Your task to perform on an android device: toggle location history Image 0: 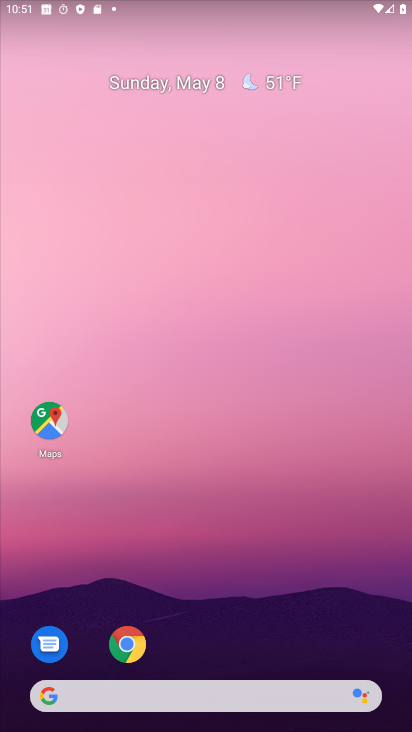
Step 0: click (270, 215)
Your task to perform on an android device: toggle location history Image 1: 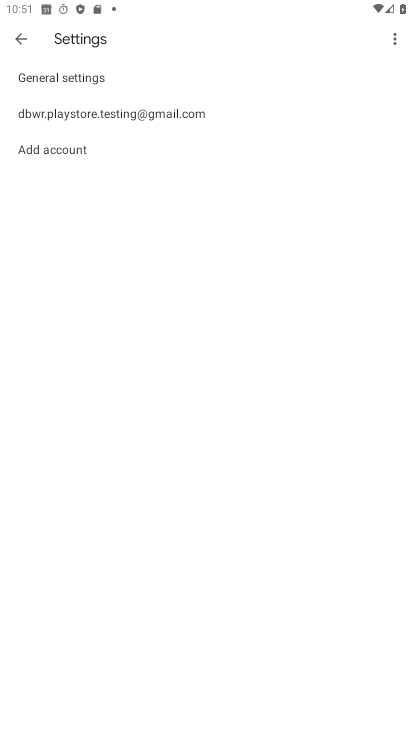
Step 1: click (117, 122)
Your task to perform on an android device: toggle location history Image 2: 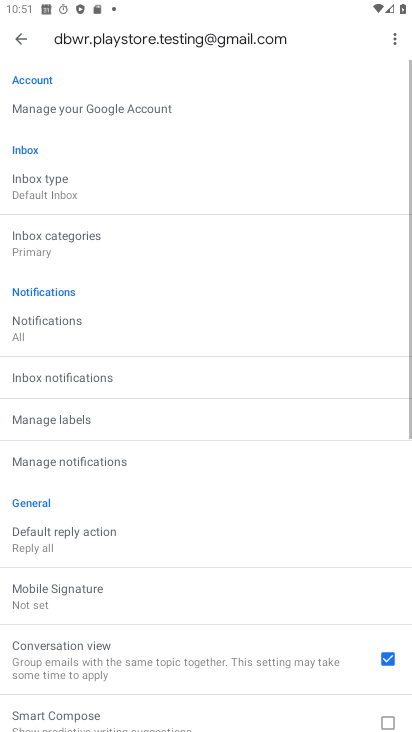
Step 2: press home button
Your task to perform on an android device: toggle location history Image 3: 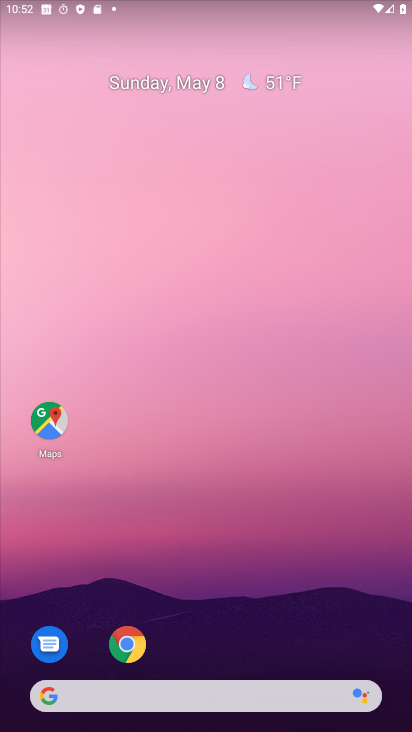
Step 3: drag from (195, 621) to (224, 202)
Your task to perform on an android device: toggle location history Image 4: 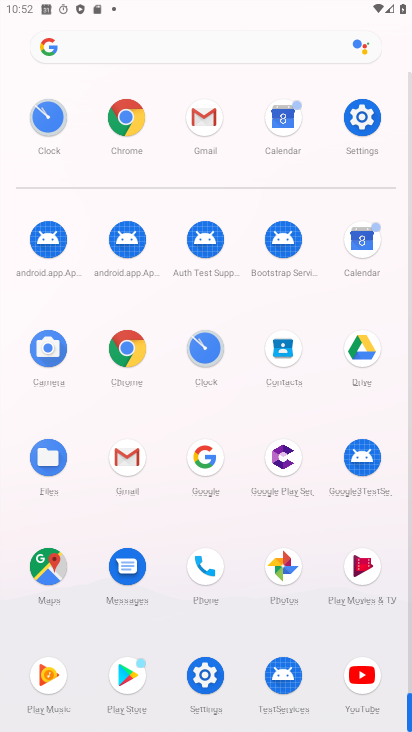
Step 4: click (366, 127)
Your task to perform on an android device: toggle location history Image 5: 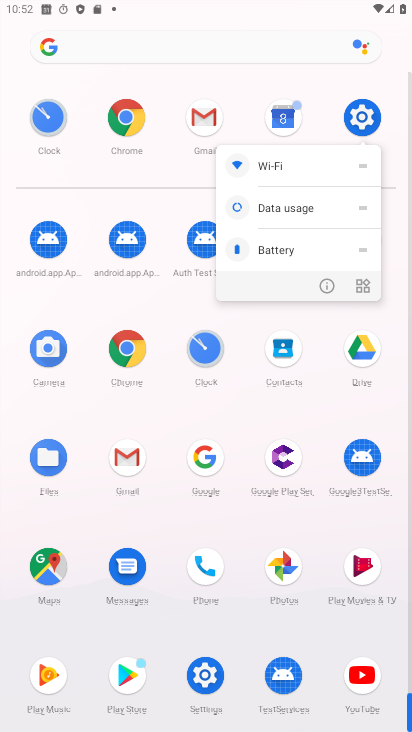
Step 5: click (330, 299)
Your task to perform on an android device: toggle location history Image 6: 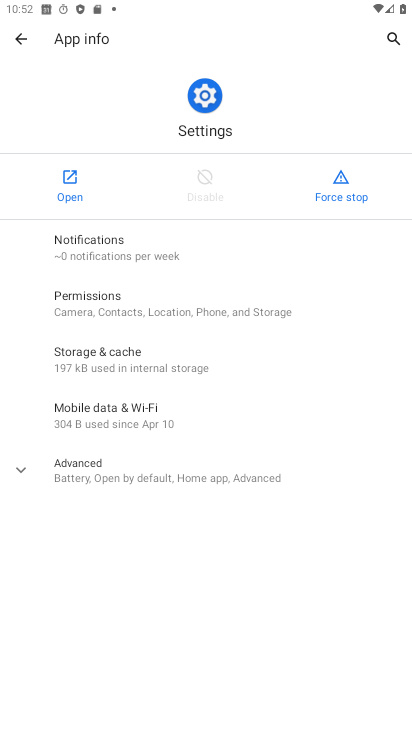
Step 6: click (60, 180)
Your task to perform on an android device: toggle location history Image 7: 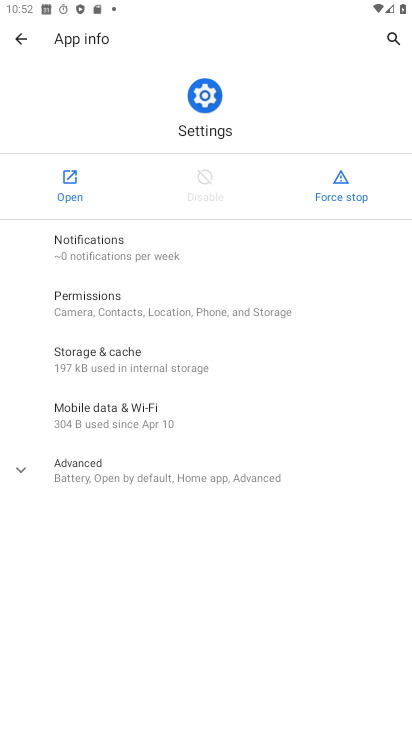
Step 7: click (60, 180)
Your task to perform on an android device: toggle location history Image 8: 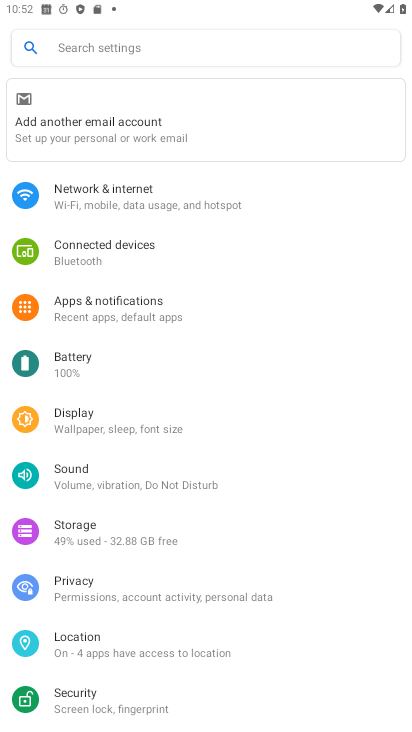
Step 8: drag from (228, 596) to (266, 280)
Your task to perform on an android device: toggle location history Image 9: 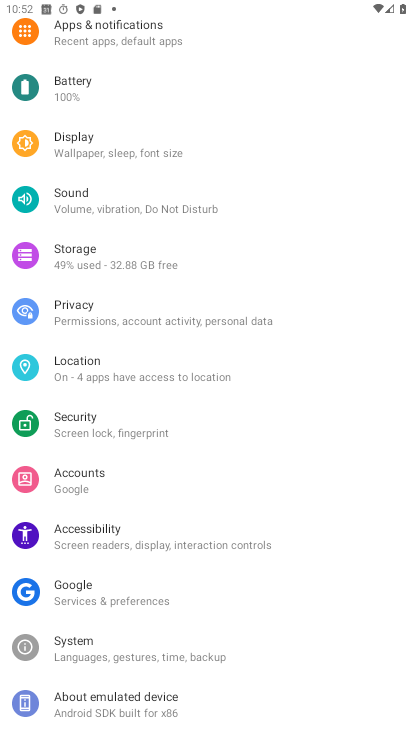
Step 9: click (113, 356)
Your task to perform on an android device: toggle location history Image 10: 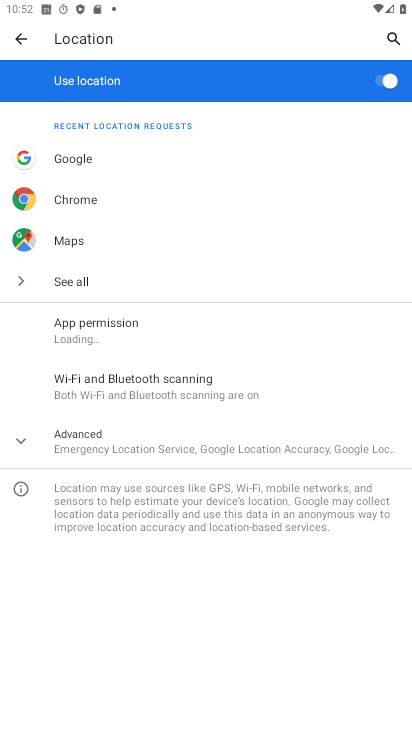
Step 10: click (141, 450)
Your task to perform on an android device: toggle location history Image 11: 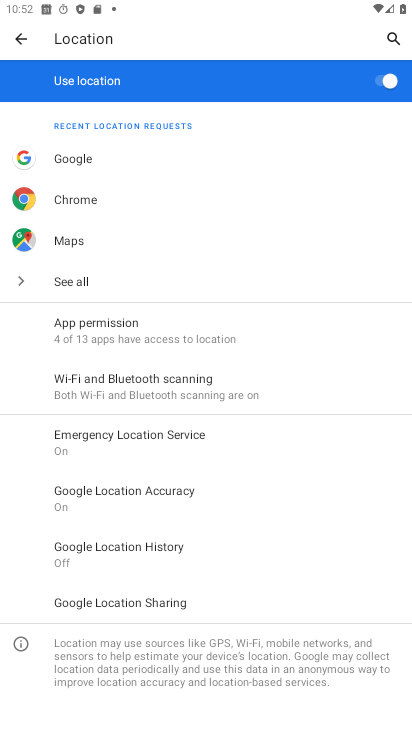
Step 11: click (138, 549)
Your task to perform on an android device: toggle location history Image 12: 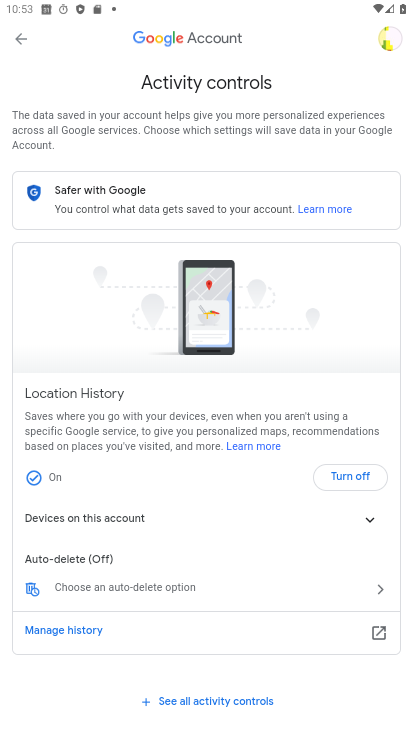
Step 12: click (350, 486)
Your task to perform on an android device: toggle location history Image 13: 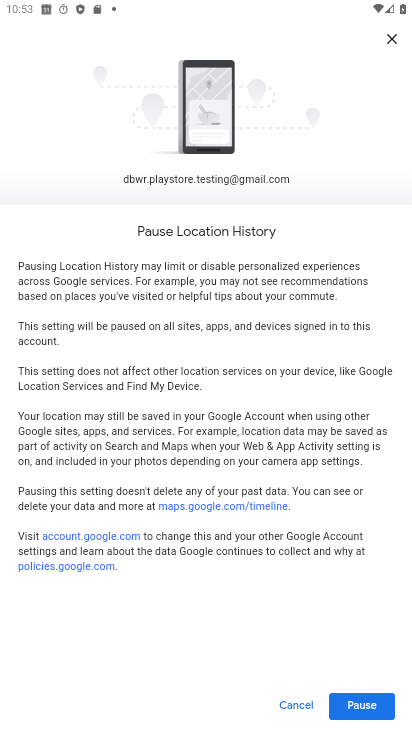
Step 13: drag from (163, 587) to (293, 273)
Your task to perform on an android device: toggle location history Image 14: 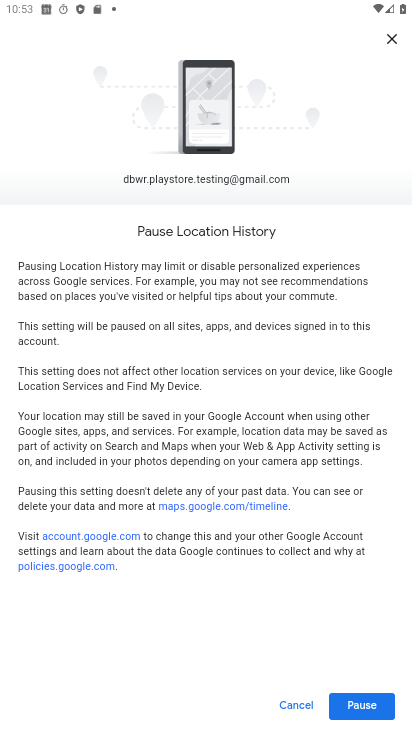
Step 14: drag from (224, 658) to (278, 305)
Your task to perform on an android device: toggle location history Image 15: 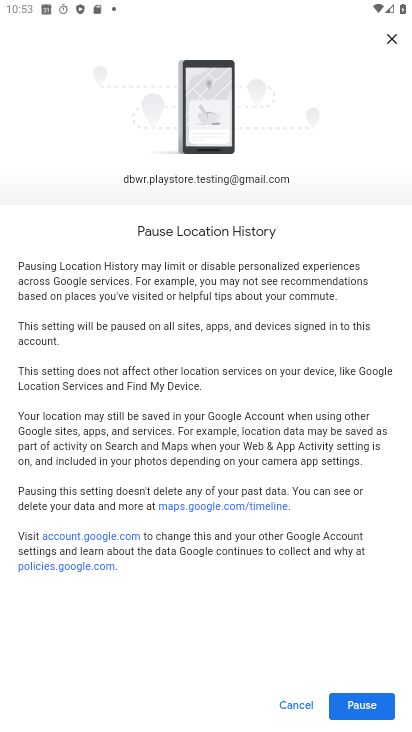
Step 15: click (361, 711)
Your task to perform on an android device: toggle location history Image 16: 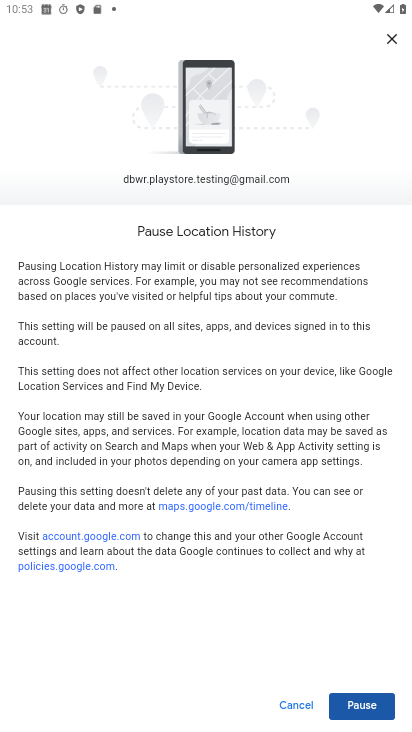
Step 16: click (362, 704)
Your task to perform on an android device: toggle location history Image 17: 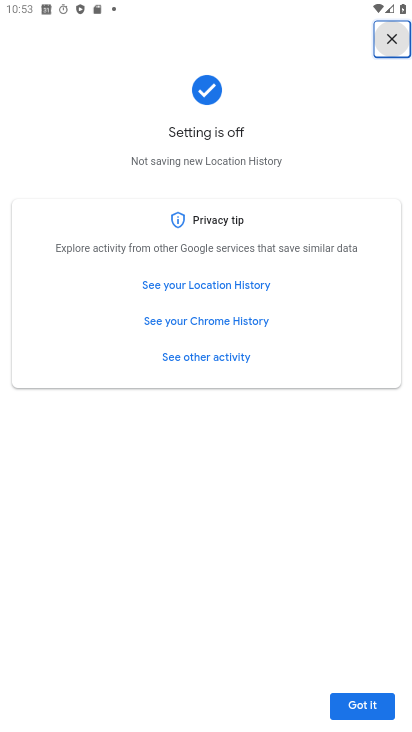
Step 17: click (368, 729)
Your task to perform on an android device: toggle location history Image 18: 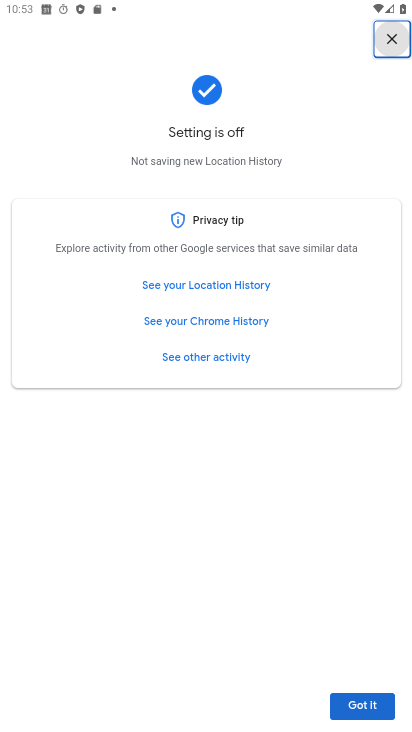
Step 18: click (366, 726)
Your task to perform on an android device: toggle location history Image 19: 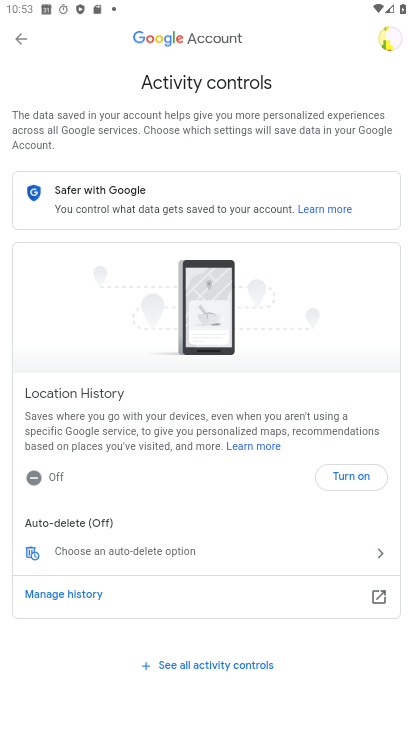
Step 19: task complete